Your task to perform on an android device: Search for hotels in Washington DC Image 0: 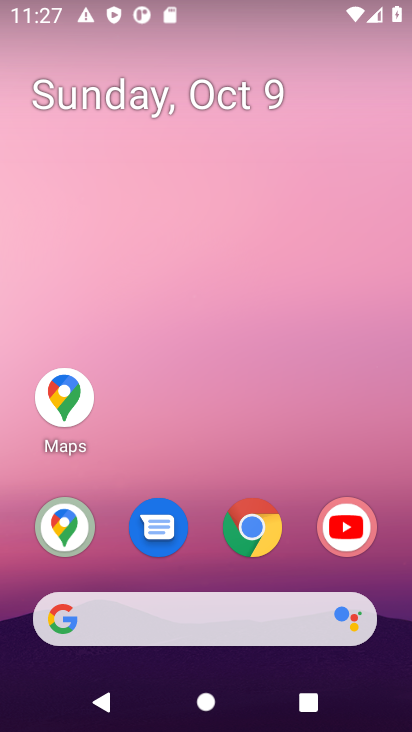
Step 0: click (63, 418)
Your task to perform on an android device: Search for hotels in Washington DC Image 1: 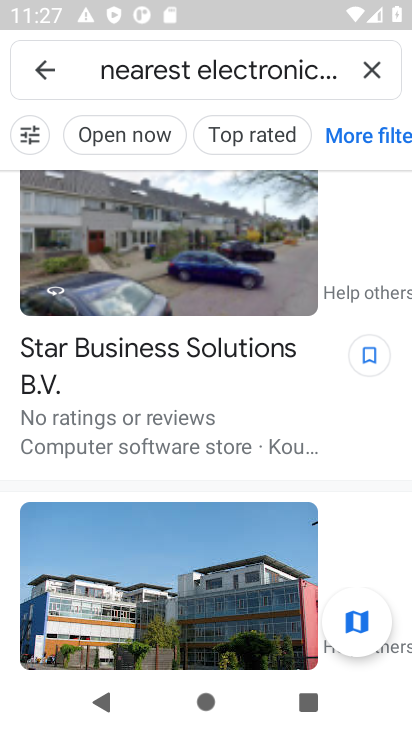
Step 1: click (374, 75)
Your task to perform on an android device: Search for hotels in Washington DC Image 2: 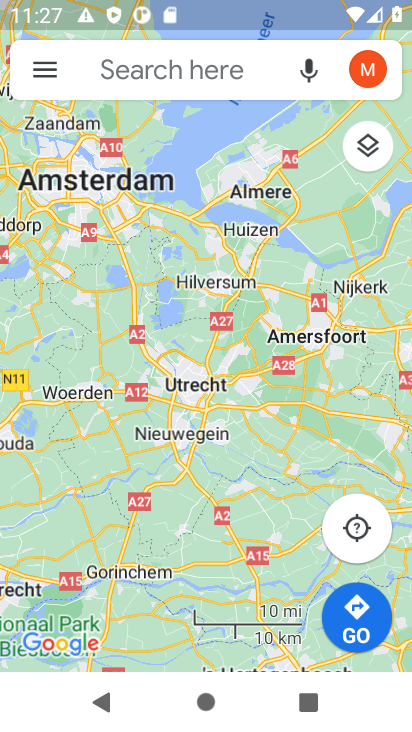
Step 2: click (156, 64)
Your task to perform on an android device: Search for hotels in Washington DC Image 3: 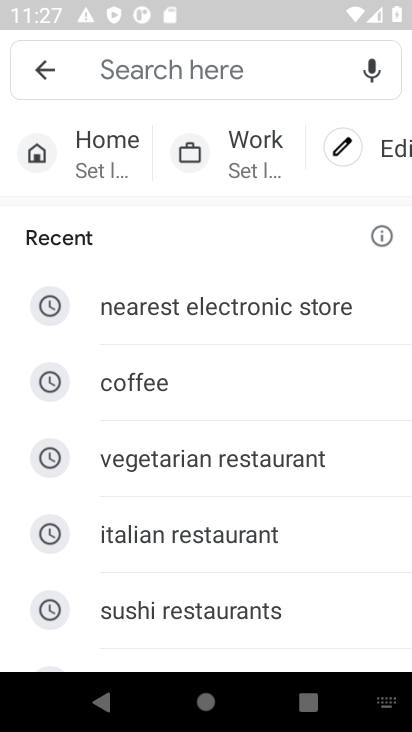
Step 3: type "hotels in washington DC"
Your task to perform on an android device: Search for hotels in Washington DC Image 4: 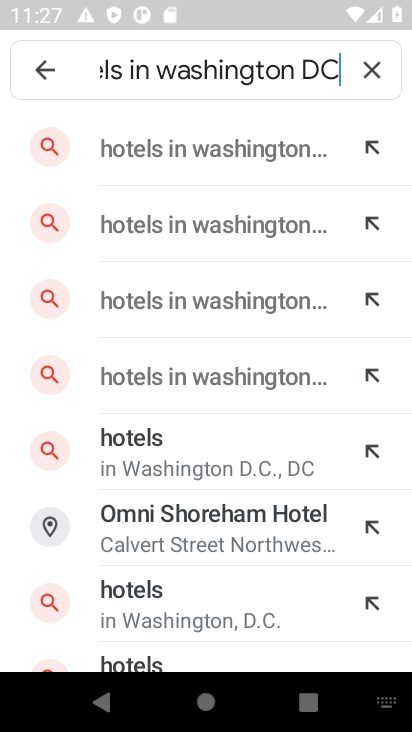
Step 4: click (146, 142)
Your task to perform on an android device: Search for hotels in Washington DC Image 5: 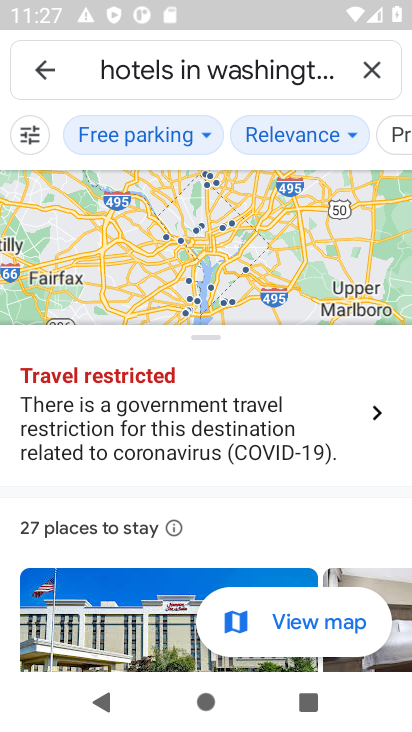
Step 5: task complete